Your task to perform on an android device: Open CNN.com Image 0: 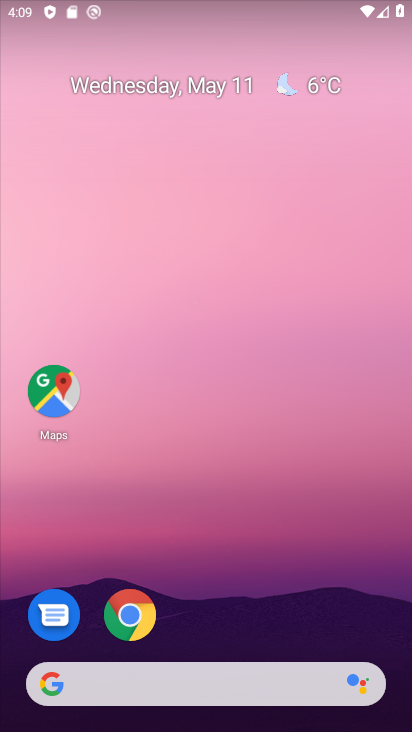
Step 0: click (133, 605)
Your task to perform on an android device: Open CNN.com Image 1: 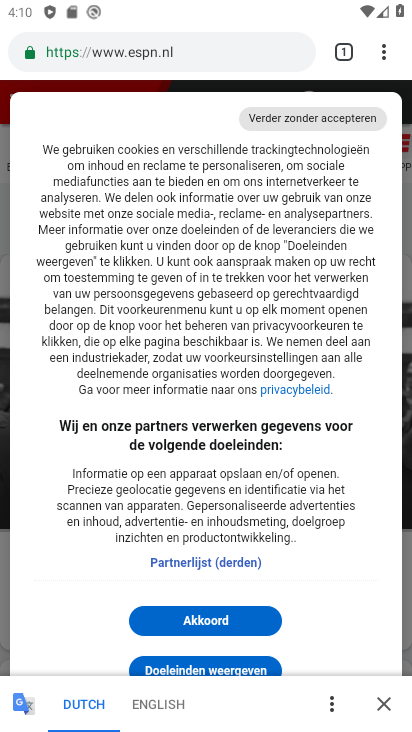
Step 1: click (240, 60)
Your task to perform on an android device: Open CNN.com Image 2: 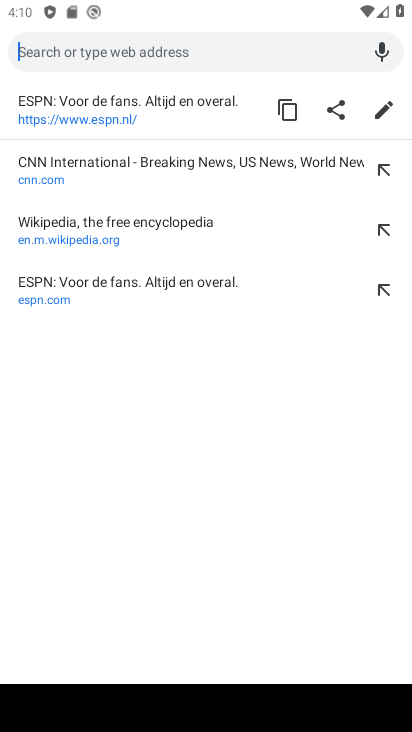
Step 2: type "cnn.com"
Your task to perform on an android device: Open CNN.com Image 3: 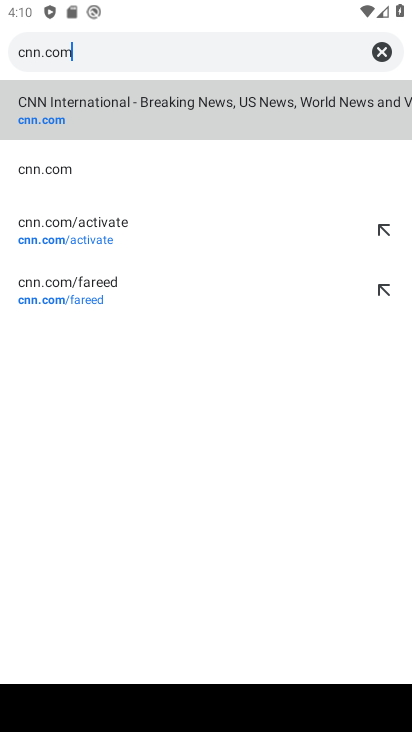
Step 3: click (60, 107)
Your task to perform on an android device: Open CNN.com Image 4: 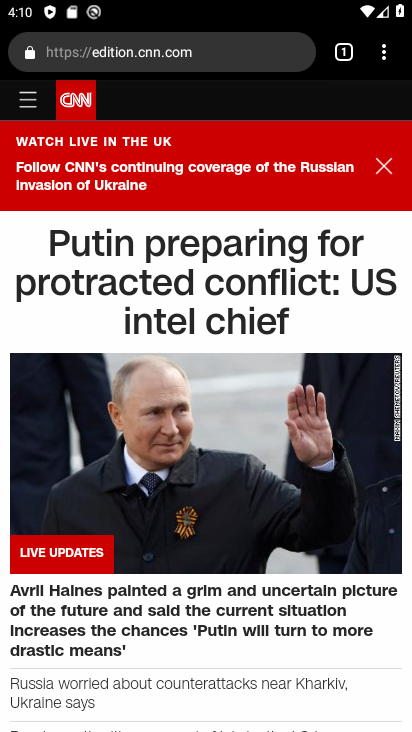
Step 4: task complete